Your task to perform on an android device: Is it going to rain today? Image 0: 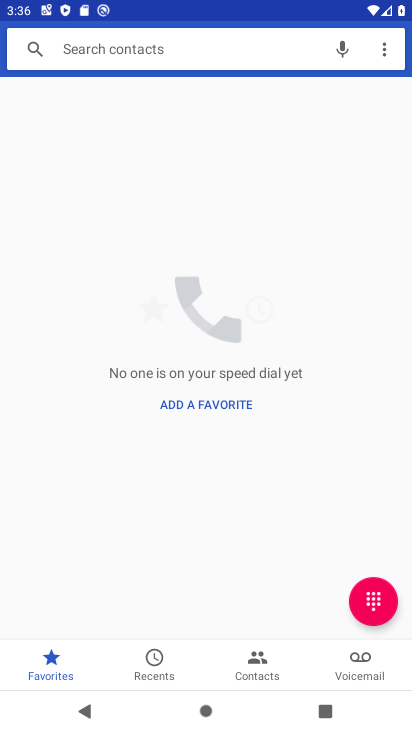
Step 0: press home button
Your task to perform on an android device: Is it going to rain today? Image 1: 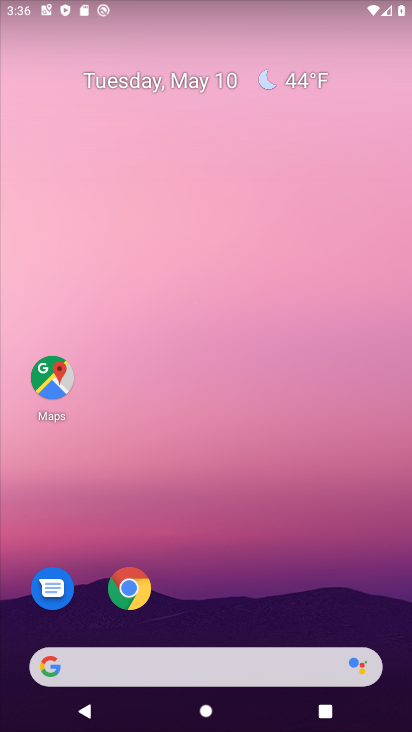
Step 1: click (308, 82)
Your task to perform on an android device: Is it going to rain today? Image 2: 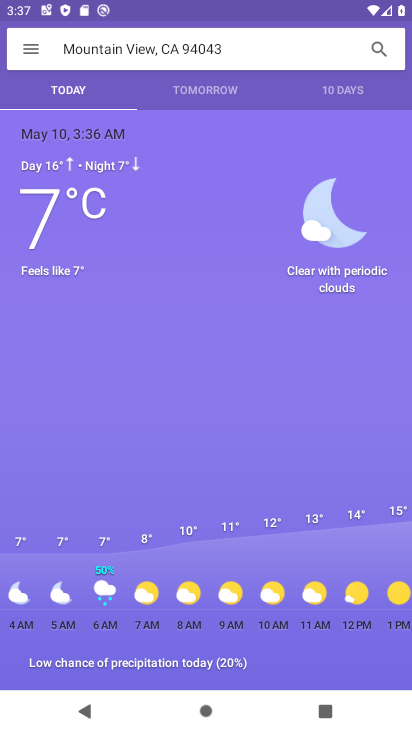
Step 2: task complete